Your task to perform on an android device: turn smart compose on in the gmail app Image 0: 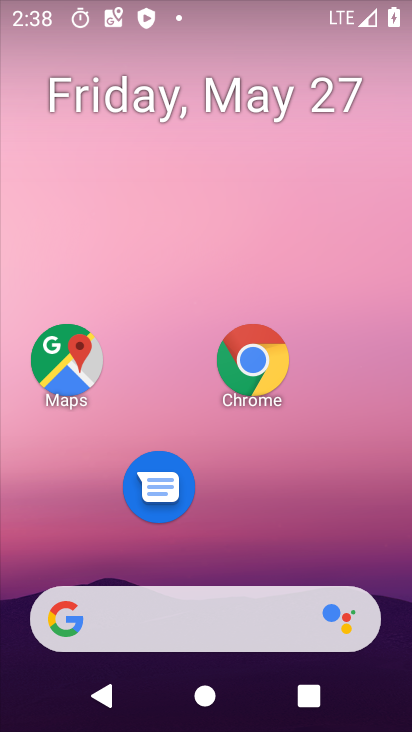
Step 0: drag from (248, 562) to (212, 135)
Your task to perform on an android device: turn smart compose on in the gmail app Image 1: 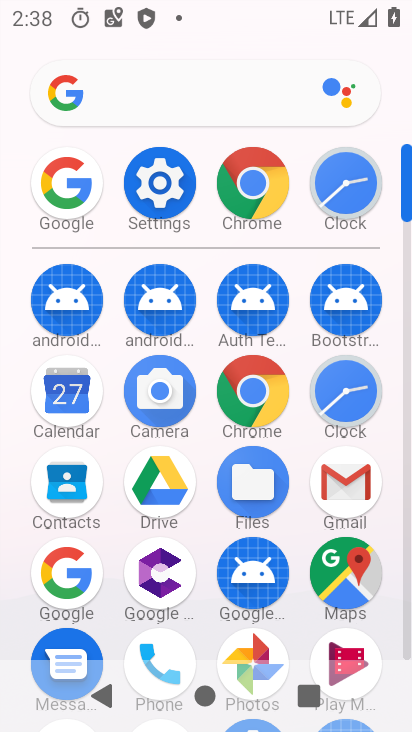
Step 1: click (333, 481)
Your task to perform on an android device: turn smart compose on in the gmail app Image 2: 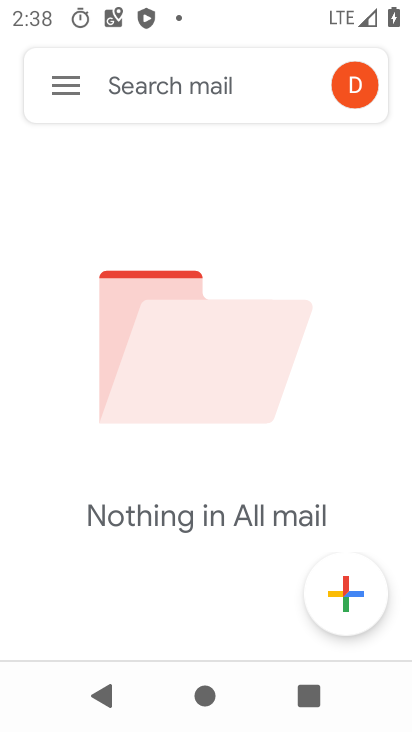
Step 2: click (59, 89)
Your task to perform on an android device: turn smart compose on in the gmail app Image 3: 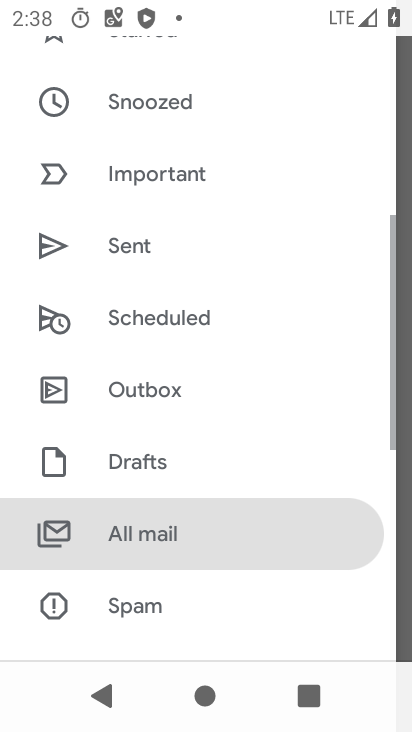
Step 3: drag from (193, 574) to (210, 25)
Your task to perform on an android device: turn smart compose on in the gmail app Image 4: 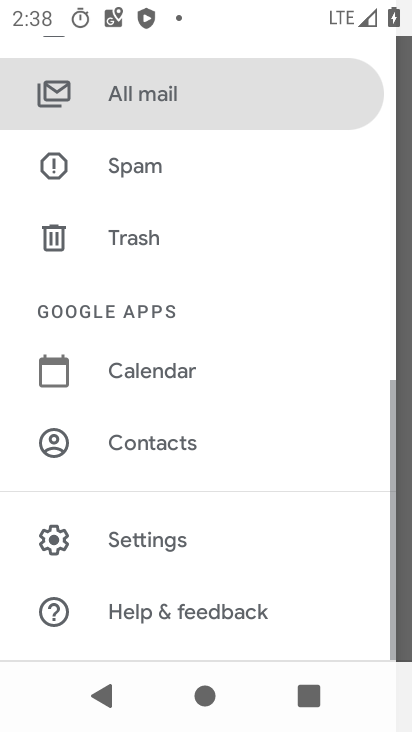
Step 4: click (167, 546)
Your task to perform on an android device: turn smart compose on in the gmail app Image 5: 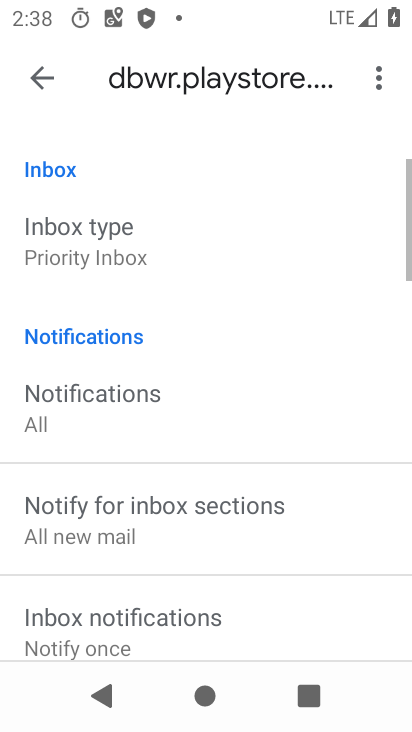
Step 5: task complete